Your task to perform on an android device: see tabs open on other devices in the chrome app Image 0: 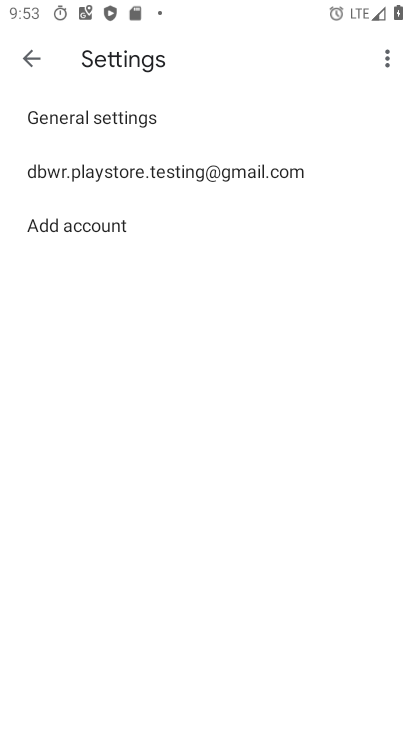
Step 0: press home button
Your task to perform on an android device: see tabs open on other devices in the chrome app Image 1: 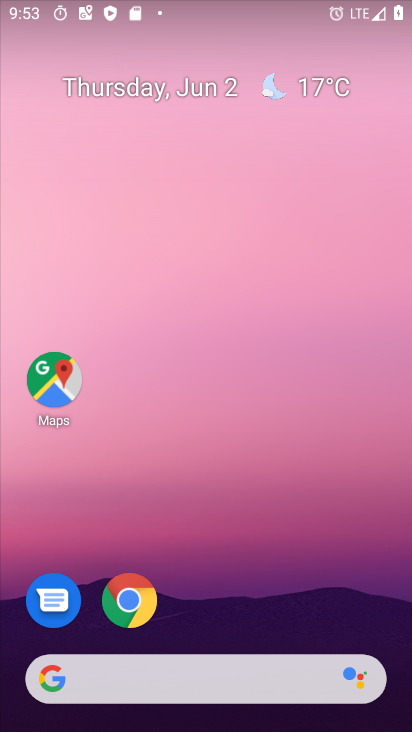
Step 1: drag from (367, 503) to (367, 177)
Your task to perform on an android device: see tabs open on other devices in the chrome app Image 2: 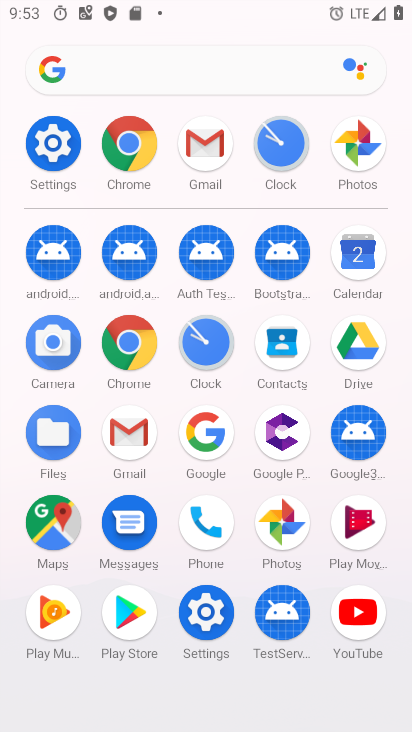
Step 2: click (137, 352)
Your task to perform on an android device: see tabs open on other devices in the chrome app Image 3: 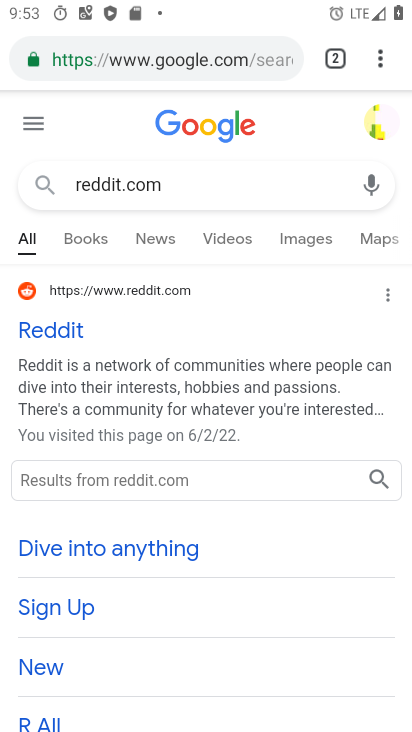
Step 3: click (386, 64)
Your task to perform on an android device: see tabs open on other devices in the chrome app Image 4: 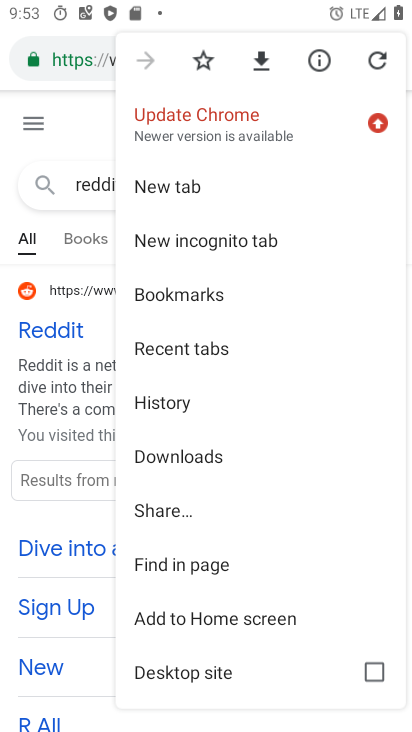
Step 4: drag from (352, 351) to (363, 287)
Your task to perform on an android device: see tabs open on other devices in the chrome app Image 5: 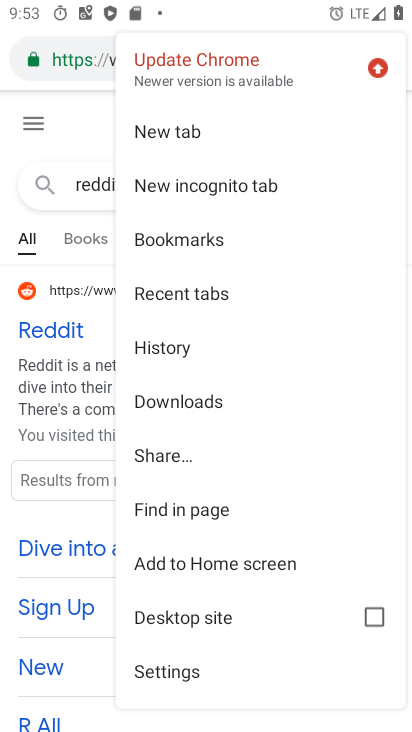
Step 5: drag from (345, 441) to (361, 350)
Your task to perform on an android device: see tabs open on other devices in the chrome app Image 6: 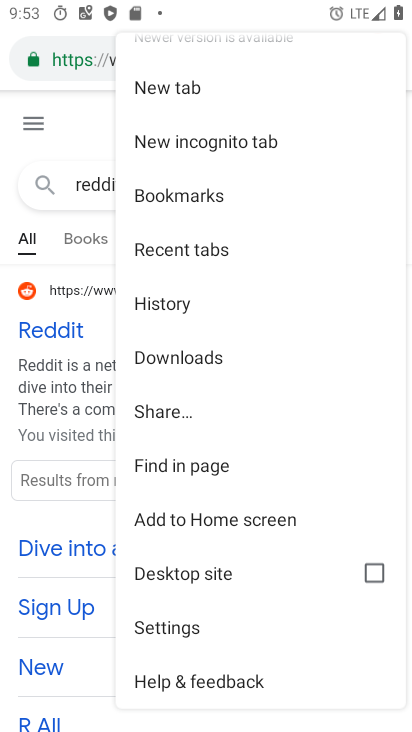
Step 6: click (206, 263)
Your task to perform on an android device: see tabs open on other devices in the chrome app Image 7: 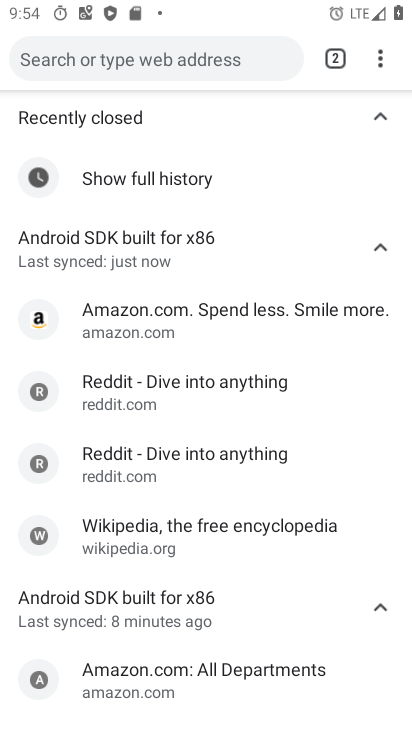
Step 7: click (335, 55)
Your task to perform on an android device: see tabs open on other devices in the chrome app Image 8: 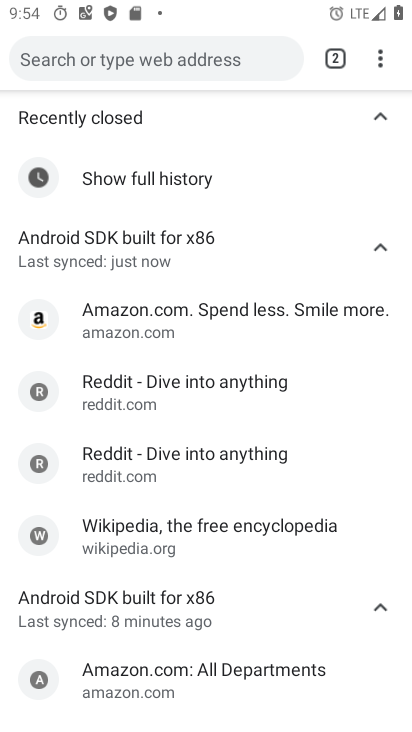
Step 8: task complete